Your task to perform on an android device: turn on location history Image 0: 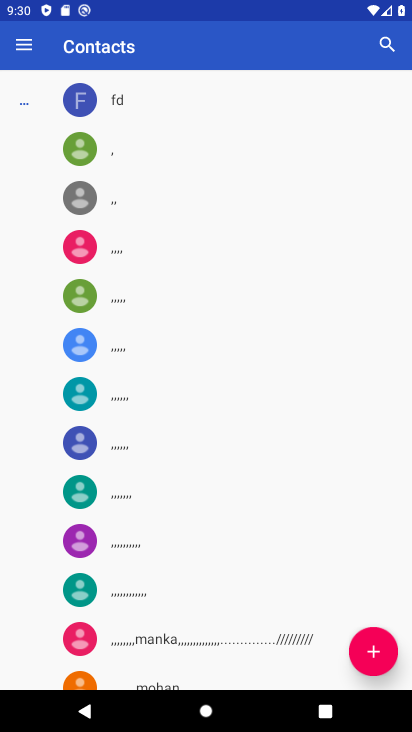
Step 0: press home button
Your task to perform on an android device: turn on location history Image 1: 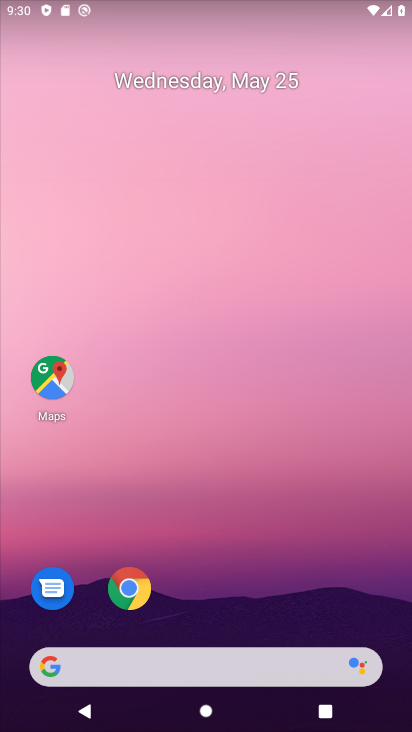
Step 1: drag from (255, 600) to (333, 0)
Your task to perform on an android device: turn on location history Image 2: 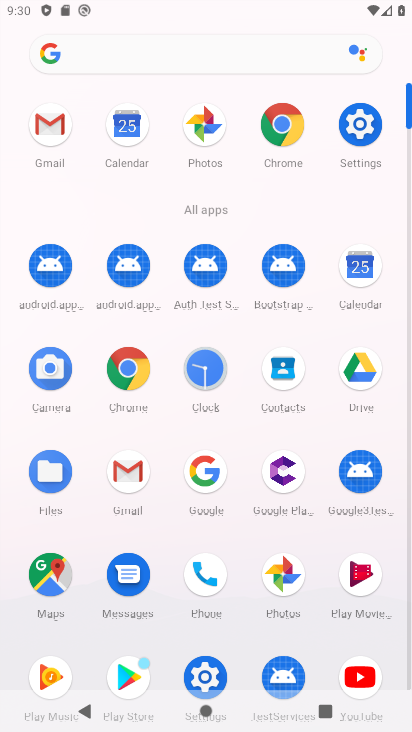
Step 2: click (361, 123)
Your task to perform on an android device: turn on location history Image 3: 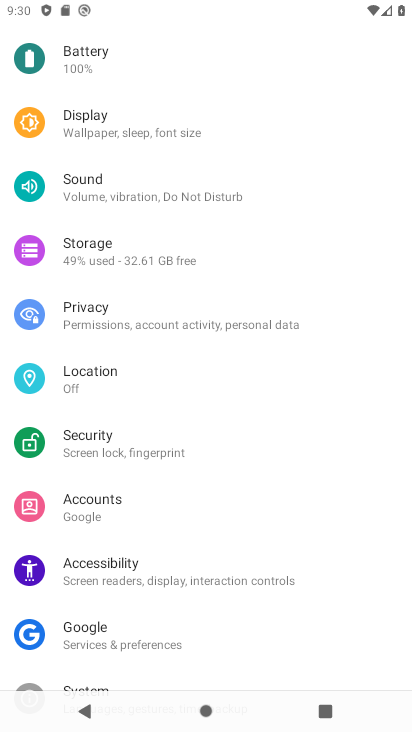
Step 3: click (96, 377)
Your task to perform on an android device: turn on location history Image 4: 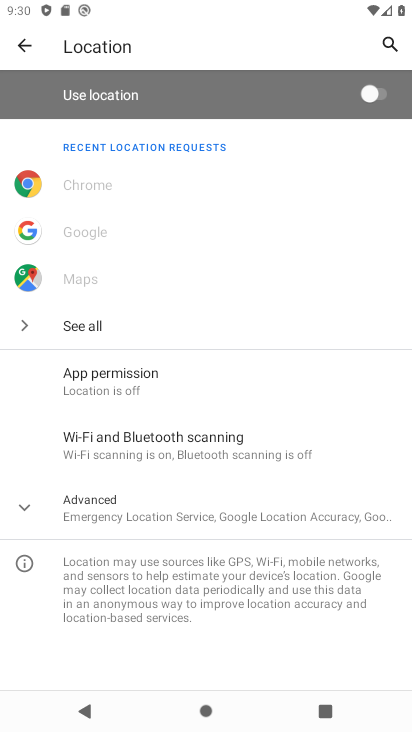
Step 4: click (133, 514)
Your task to perform on an android device: turn on location history Image 5: 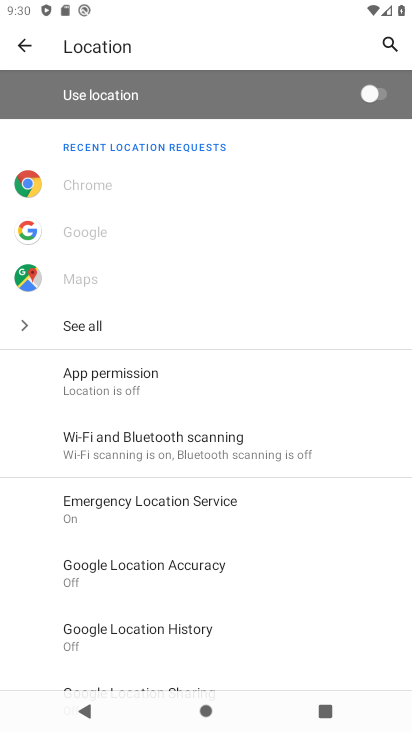
Step 5: drag from (140, 576) to (189, 450)
Your task to perform on an android device: turn on location history Image 6: 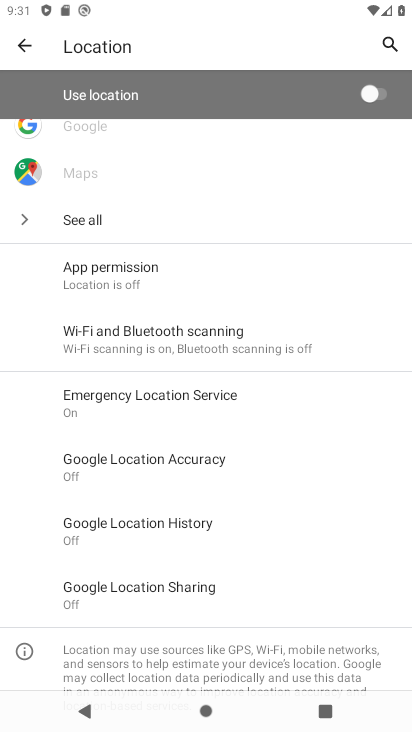
Step 6: click (181, 518)
Your task to perform on an android device: turn on location history Image 7: 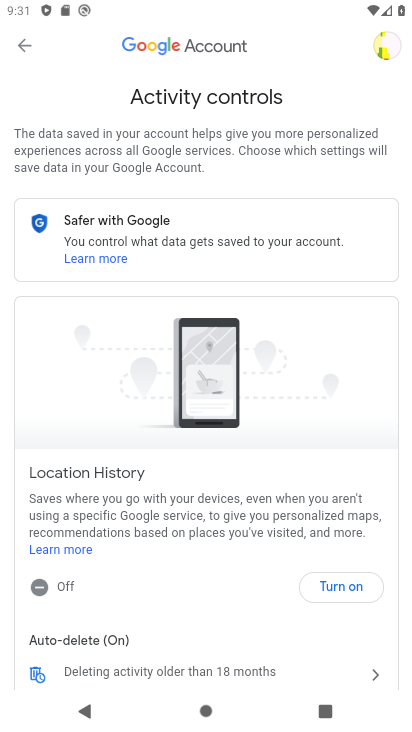
Step 7: click (359, 585)
Your task to perform on an android device: turn on location history Image 8: 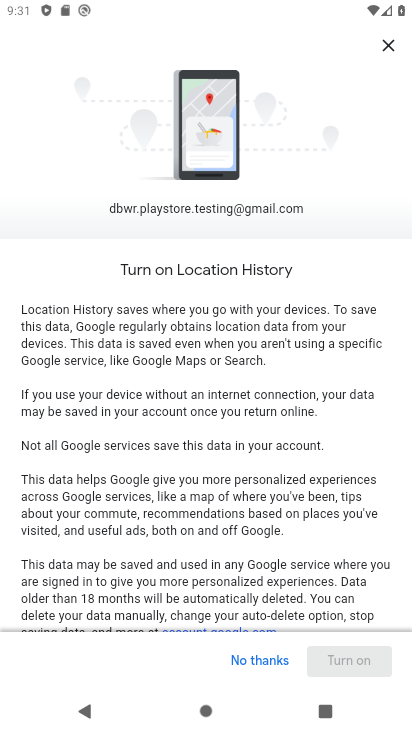
Step 8: drag from (327, 601) to (339, 268)
Your task to perform on an android device: turn on location history Image 9: 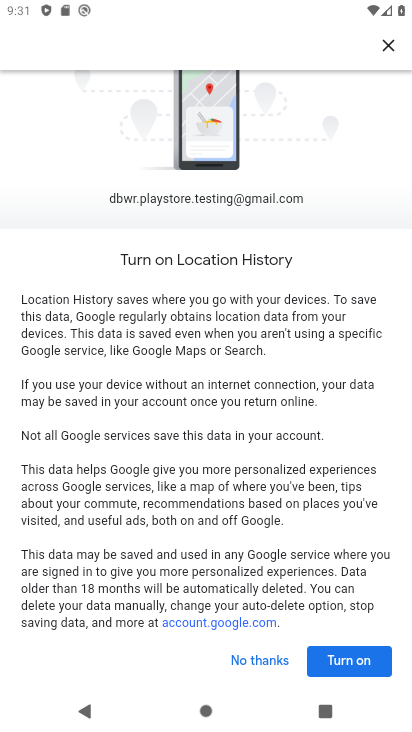
Step 9: click (349, 653)
Your task to perform on an android device: turn on location history Image 10: 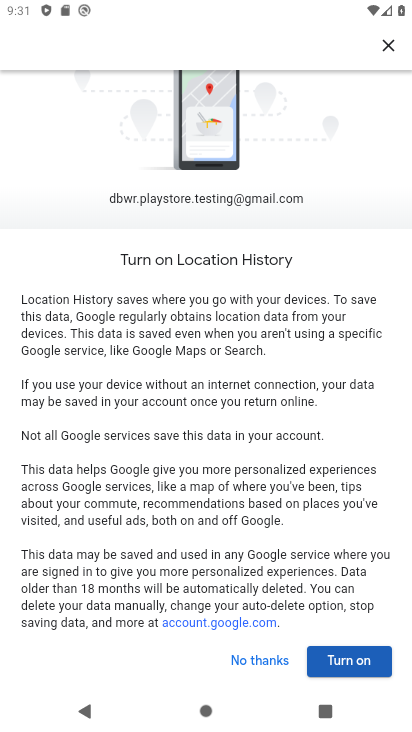
Step 10: click (347, 657)
Your task to perform on an android device: turn on location history Image 11: 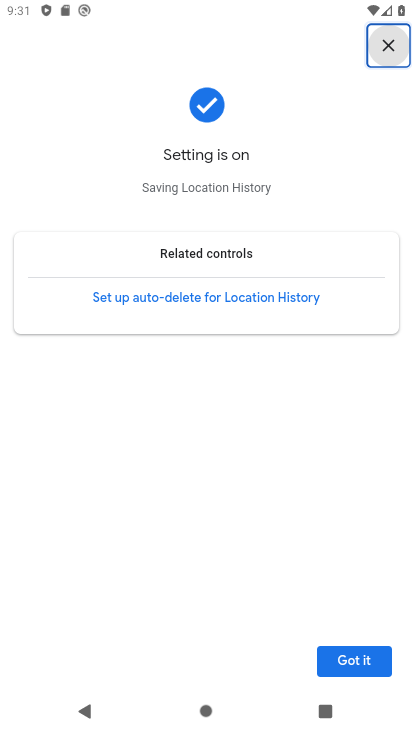
Step 11: task complete